Your task to perform on an android device: Open display settings Image 0: 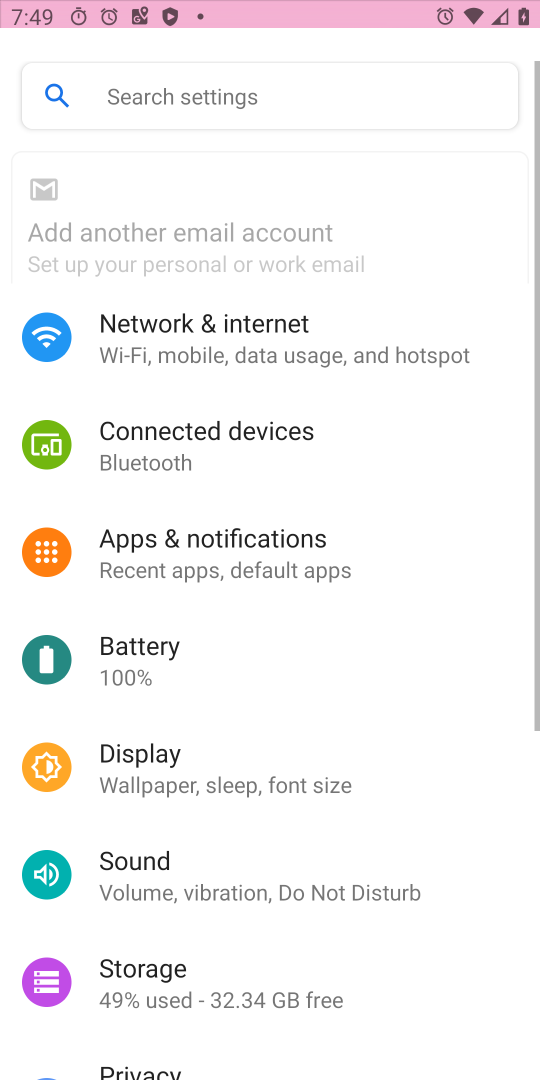
Step 0: press home button
Your task to perform on an android device: Open display settings Image 1: 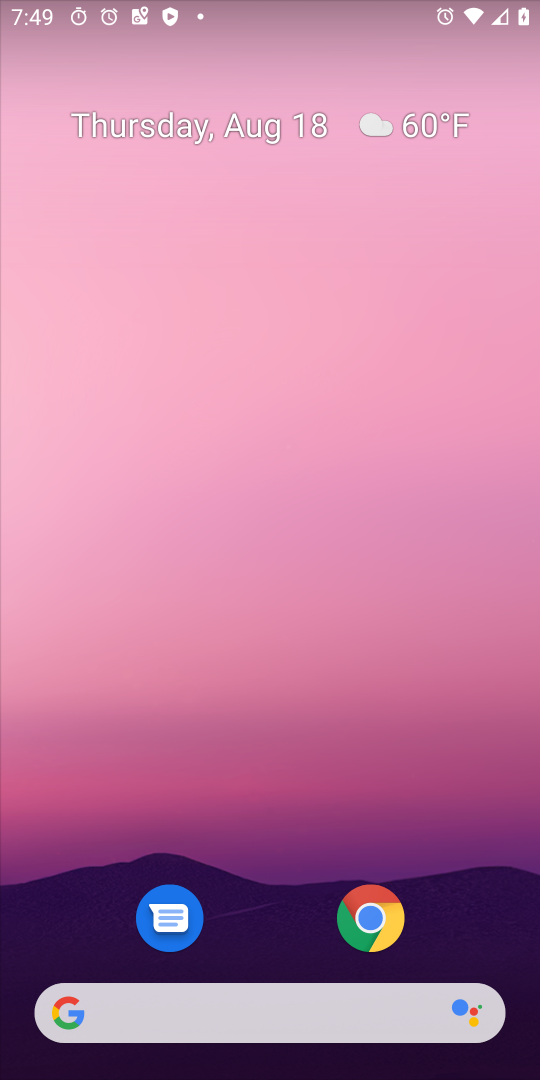
Step 1: drag from (288, 948) to (267, 47)
Your task to perform on an android device: Open display settings Image 2: 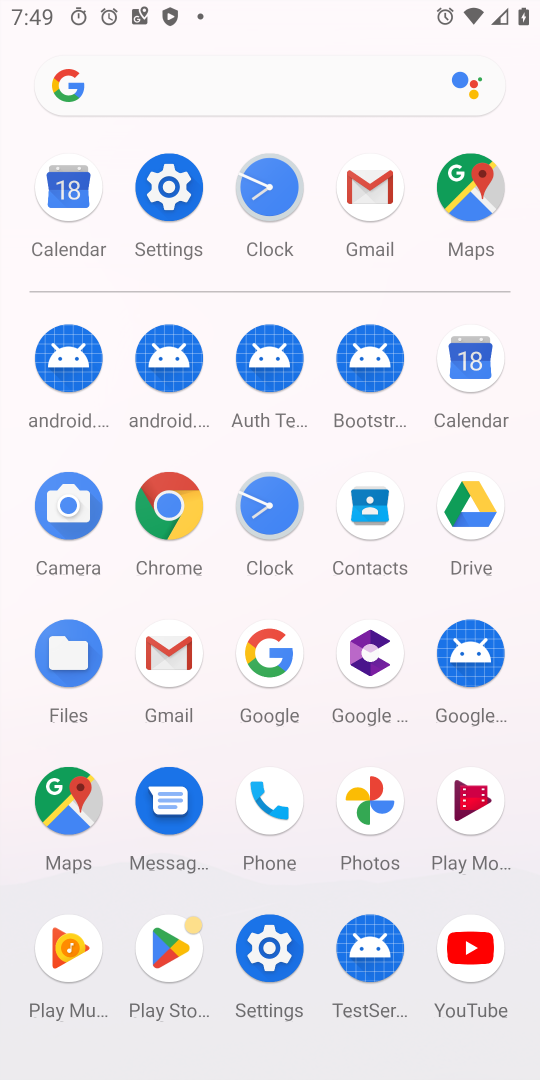
Step 2: click (167, 196)
Your task to perform on an android device: Open display settings Image 3: 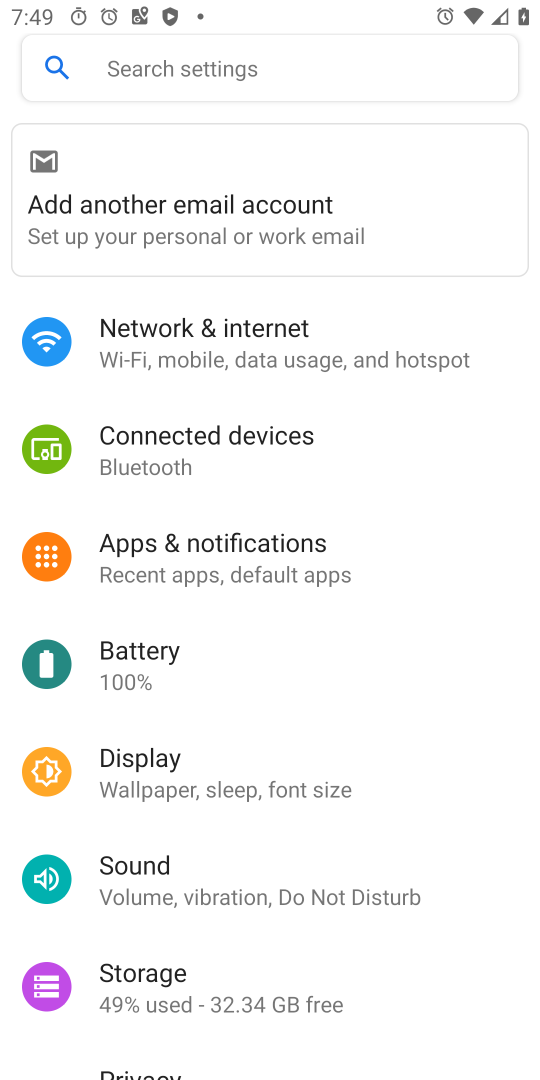
Step 3: click (163, 781)
Your task to perform on an android device: Open display settings Image 4: 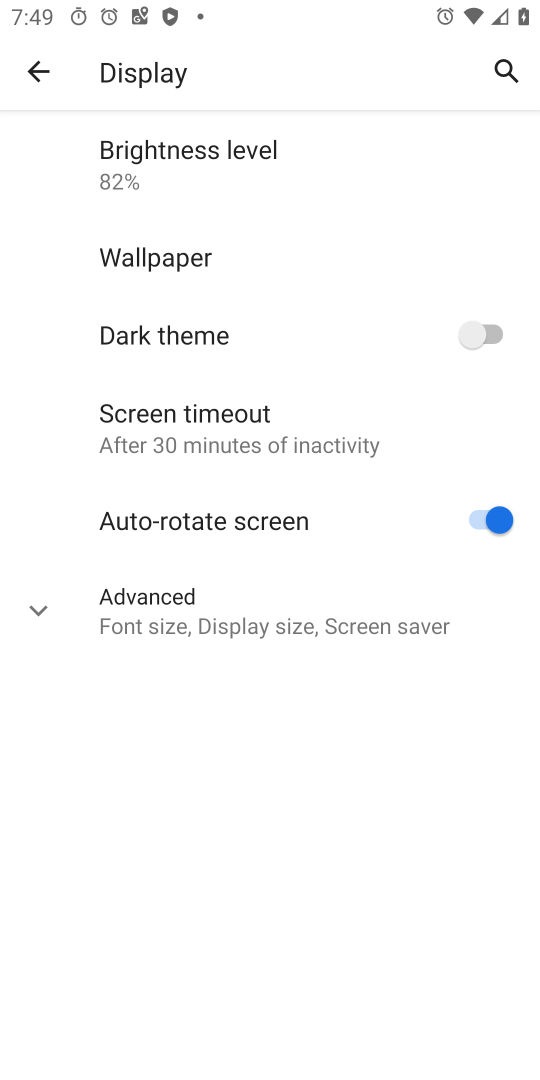
Step 4: task complete